Your task to perform on an android device: Turn off the flashlight Image 0: 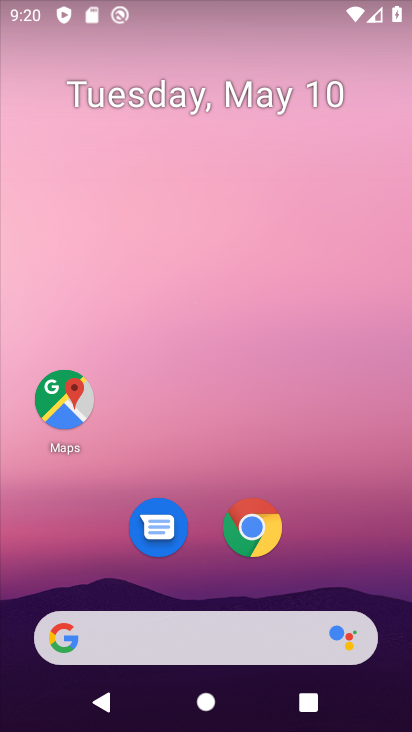
Step 0: drag from (226, 714) to (232, 128)
Your task to perform on an android device: Turn off the flashlight Image 1: 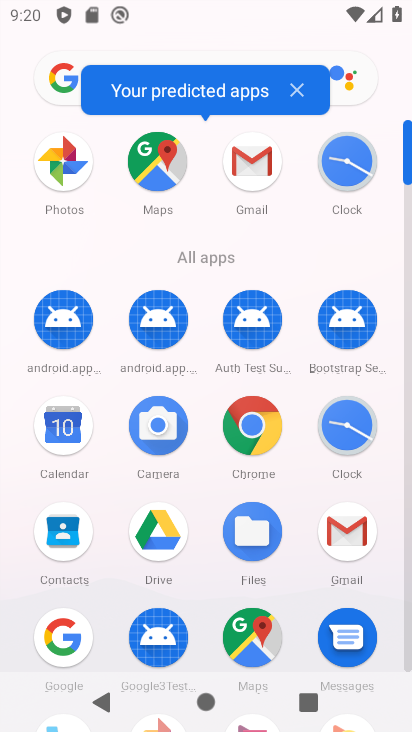
Step 1: drag from (208, 630) to (212, 299)
Your task to perform on an android device: Turn off the flashlight Image 2: 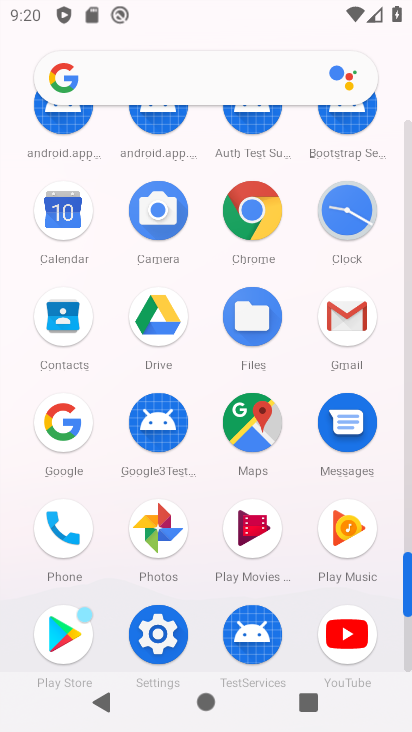
Step 2: click (147, 639)
Your task to perform on an android device: Turn off the flashlight Image 3: 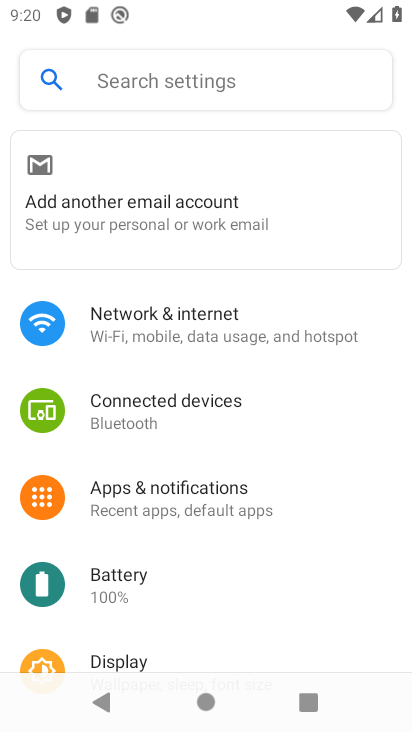
Step 3: task complete